Your task to perform on an android device: open sync settings in chrome Image 0: 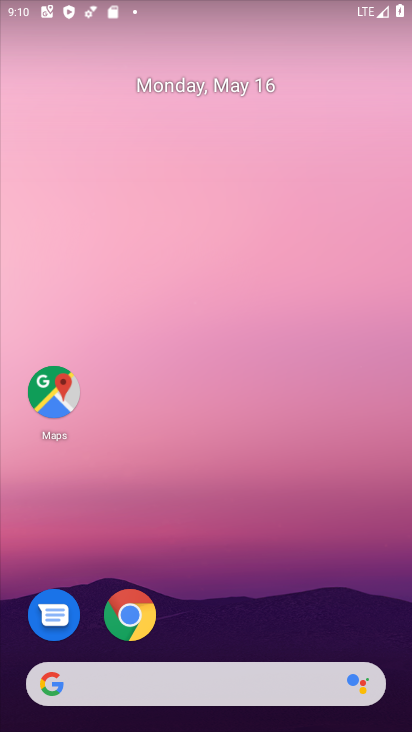
Step 0: drag from (222, 629) to (183, 279)
Your task to perform on an android device: open sync settings in chrome Image 1: 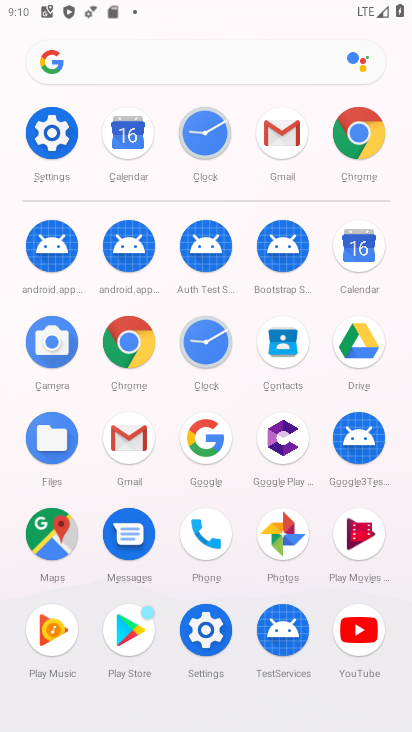
Step 1: click (349, 161)
Your task to perform on an android device: open sync settings in chrome Image 2: 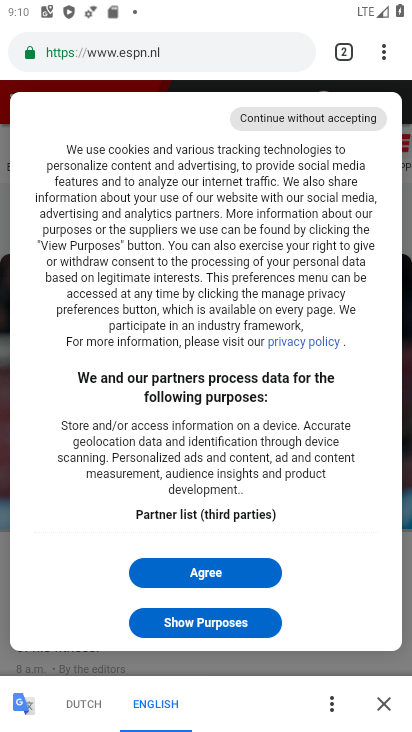
Step 2: click (383, 57)
Your task to perform on an android device: open sync settings in chrome Image 3: 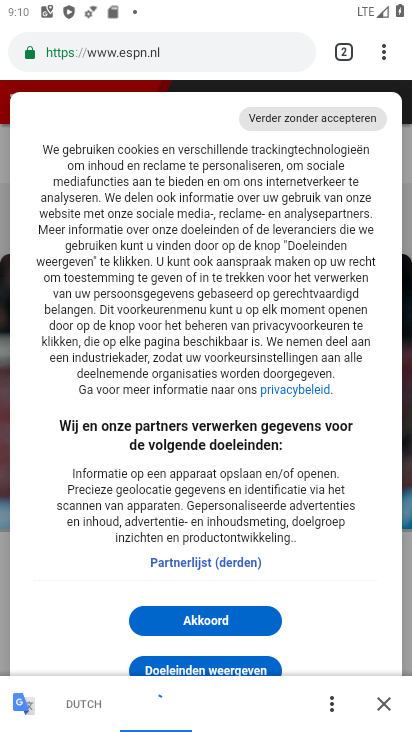
Step 3: click (377, 48)
Your task to perform on an android device: open sync settings in chrome Image 4: 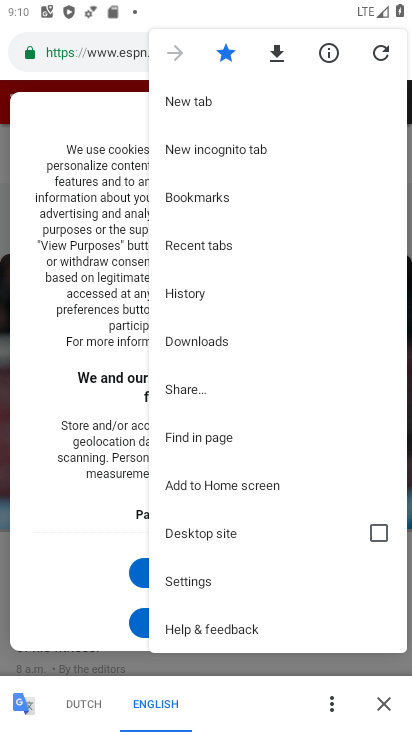
Step 4: click (220, 580)
Your task to perform on an android device: open sync settings in chrome Image 5: 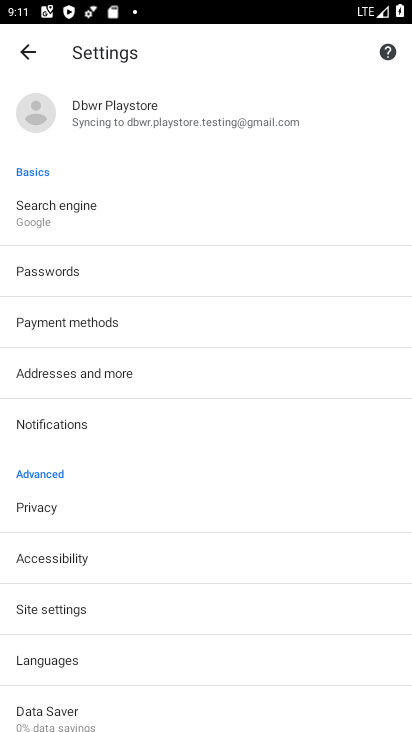
Step 5: click (164, 126)
Your task to perform on an android device: open sync settings in chrome Image 6: 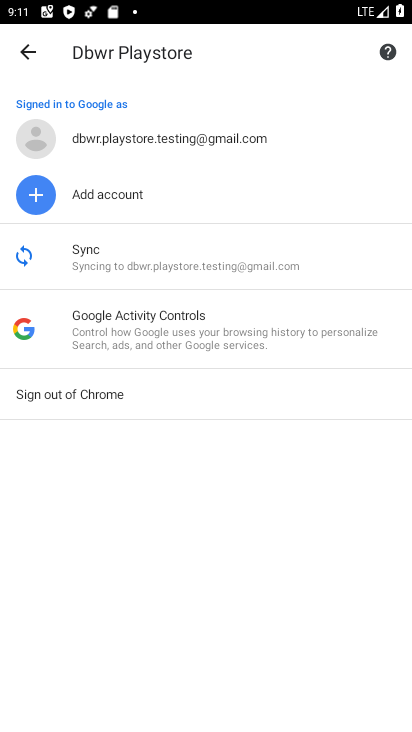
Step 6: click (173, 267)
Your task to perform on an android device: open sync settings in chrome Image 7: 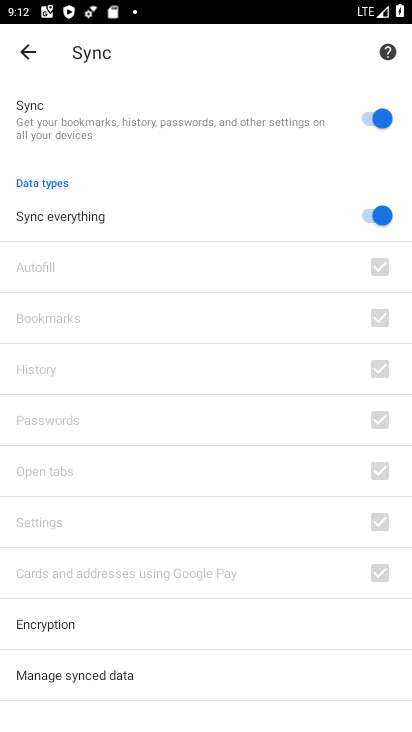
Step 7: task complete